Your task to perform on an android device: empty trash in the gmail app Image 0: 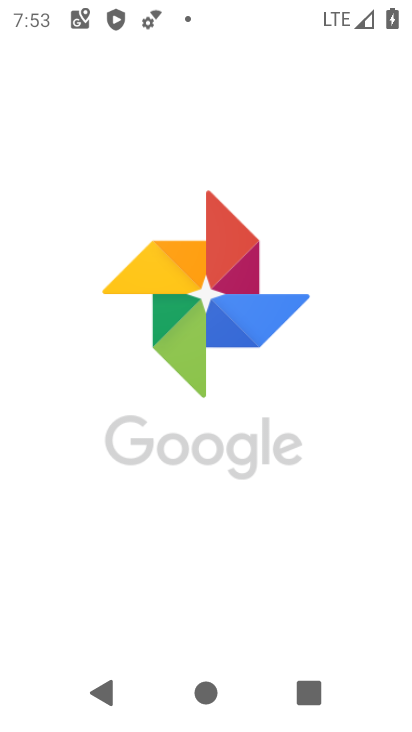
Step 0: click (219, 547)
Your task to perform on an android device: empty trash in the gmail app Image 1: 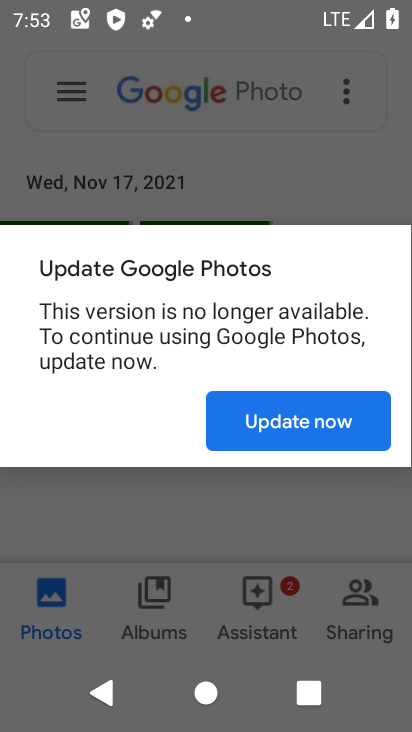
Step 1: press home button
Your task to perform on an android device: empty trash in the gmail app Image 2: 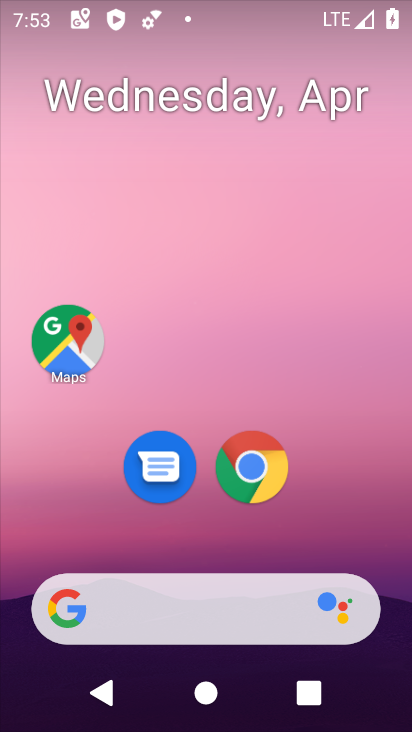
Step 2: drag from (210, 516) to (140, 21)
Your task to perform on an android device: empty trash in the gmail app Image 3: 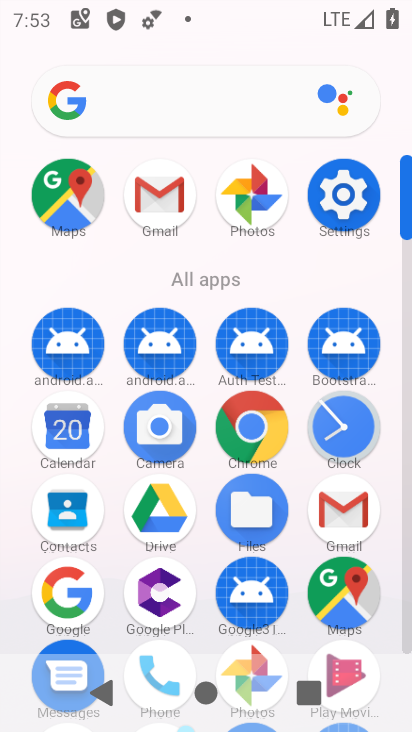
Step 3: click (341, 528)
Your task to perform on an android device: empty trash in the gmail app Image 4: 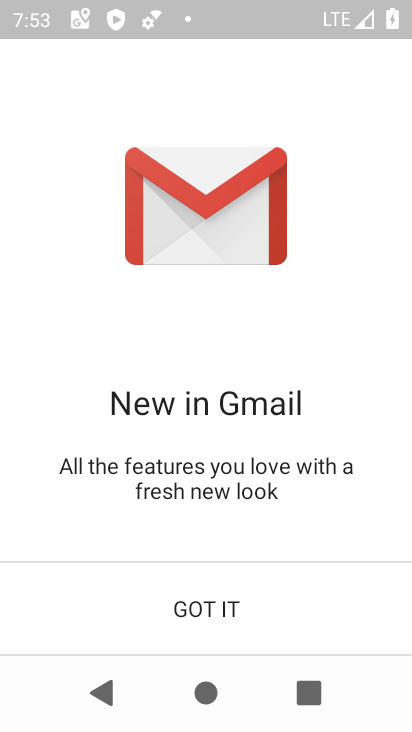
Step 4: click (214, 609)
Your task to perform on an android device: empty trash in the gmail app Image 5: 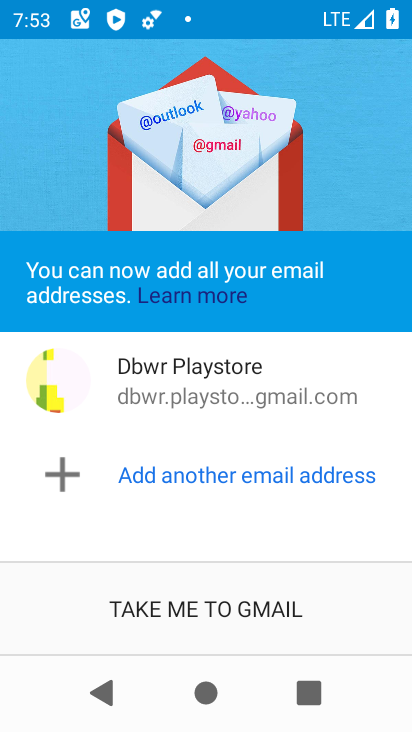
Step 5: click (217, 615)
Your task to perform on an android device: empty trash in the gmail app Image 6: 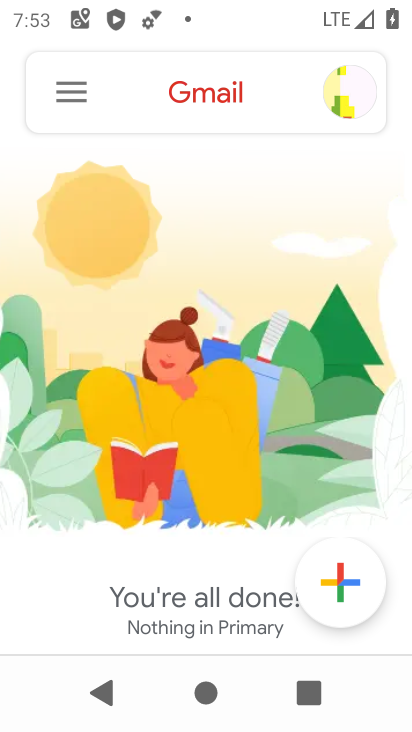
Step 6: click (77, 94)
Your task to perform on an android device: empty trash in the gmail app Image 7: 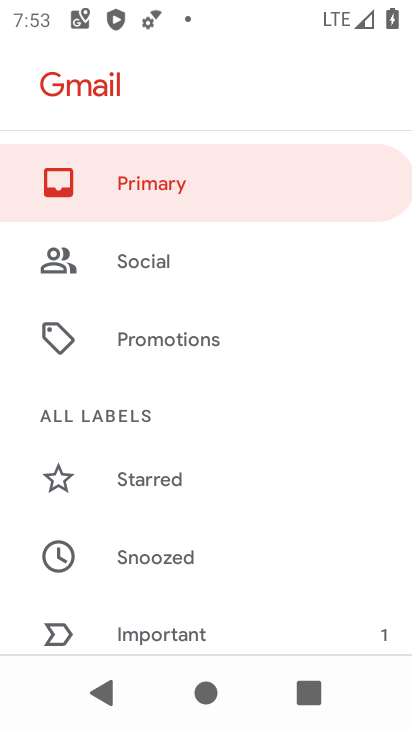
Step 7: drag from (133, 525) to (77, 65)
Your task to perform on an android device: empty trash in the gmail app Image 8: 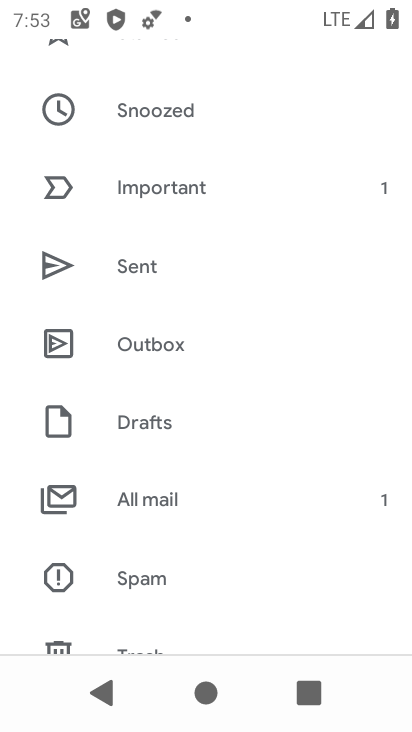
Step 8: drag from (165, 517) to (129, 251)
Your task to perform on an android device: empty trash in the gmail app Image 9: 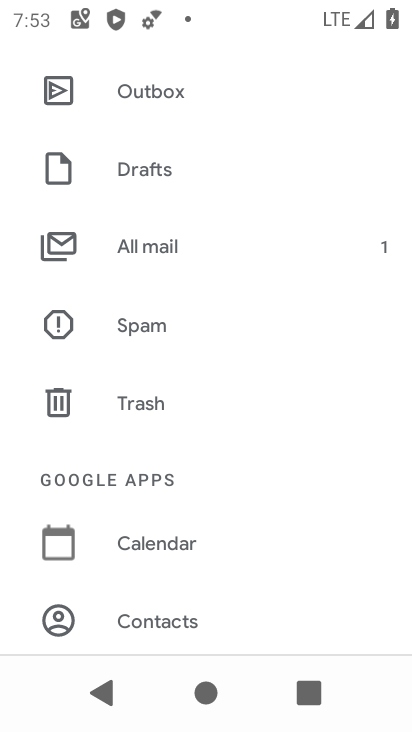
Step 9: click (145, 452)
Your task to perform on an android device: empty trash in the gmail app Image 10: 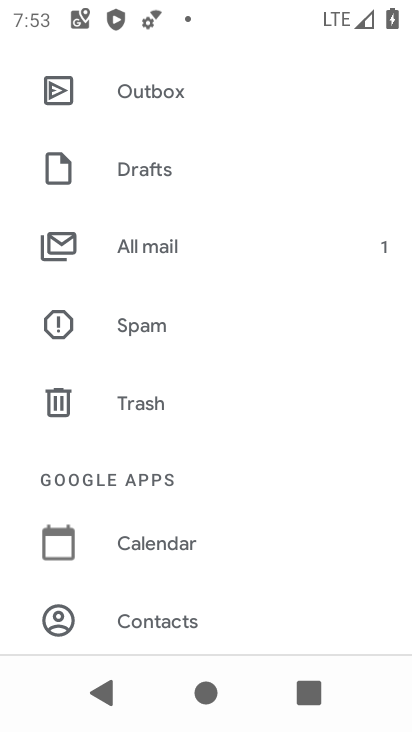
Step 10: click (138, 419)
Your task to perform on an android device: empty trash in the gmail app Image 11: 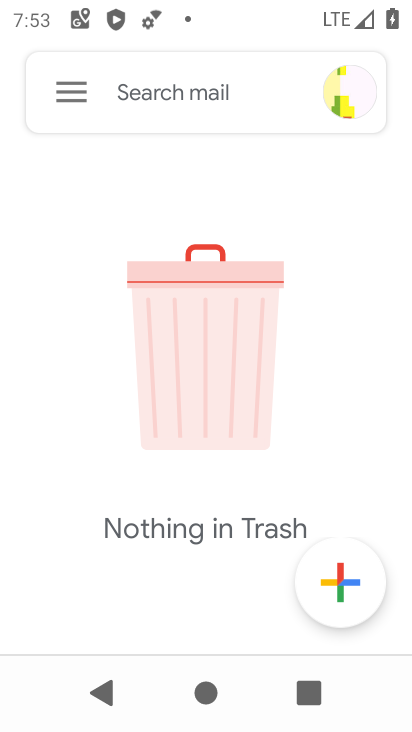
Step 11: task complete